Your task to perform on an android device: Open the map Image 0: 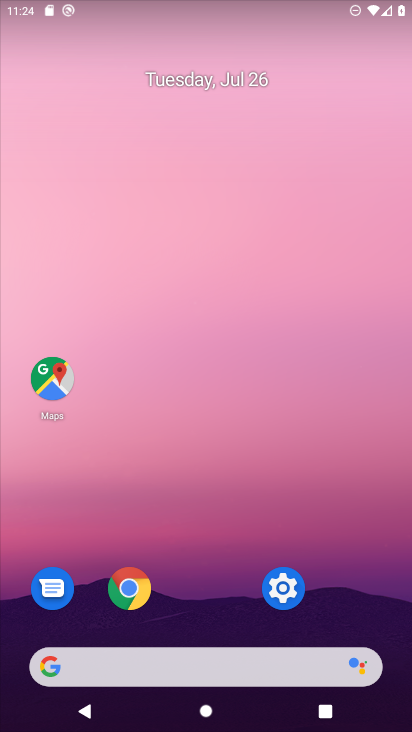
Step 0: drag from (265, 685) to (203, 212)
Your task to perform on an android device: Open the map Image 1: 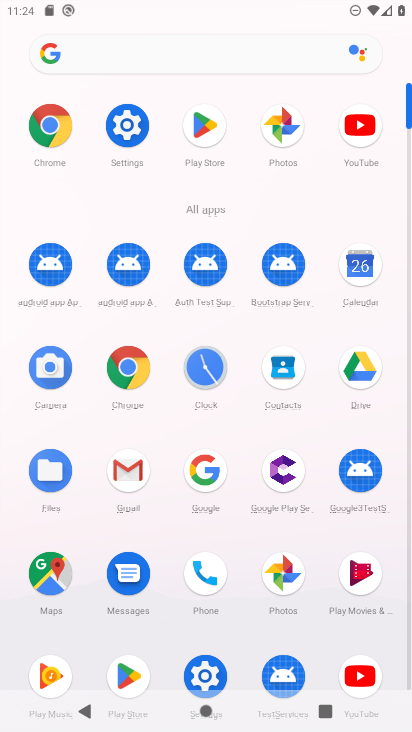
Step 1: click (54, 576)
Your task to perform on an android device: Open the map Image 2: 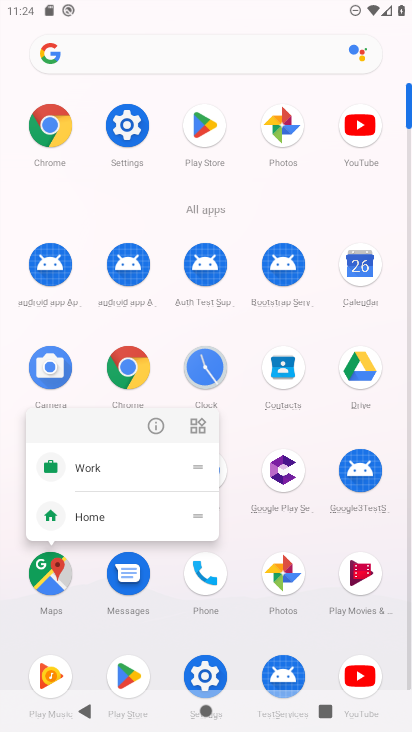
Step 2: click (51, 579)
Your task to perform on an android device: Open the map Image 3: 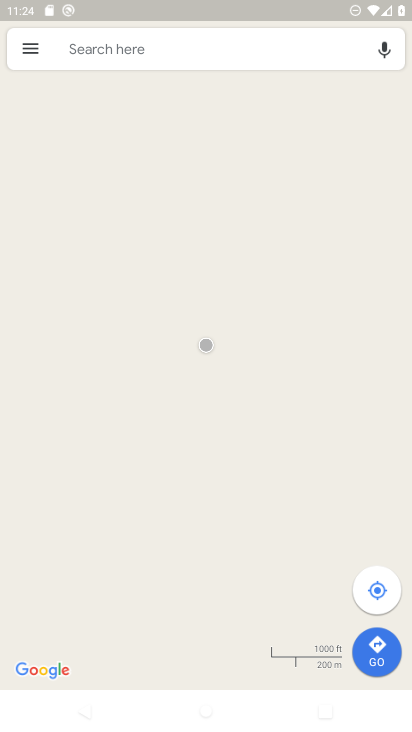
Step 3: click (383, 582)
Your task to perform on an android device: Open the map Image 4: 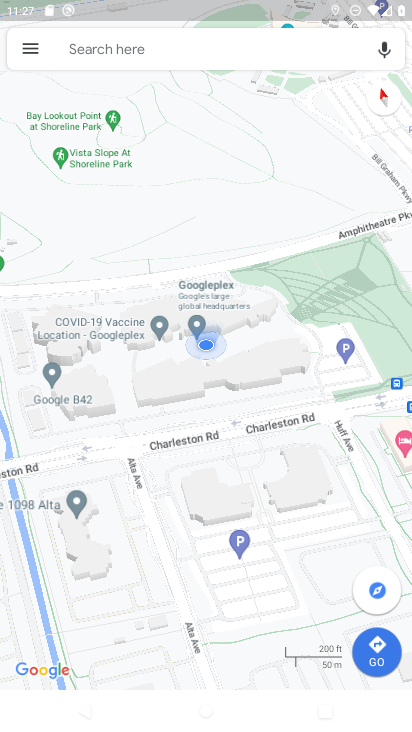
Step 4: task complete